Your task to perform on an android device: Search for "razer huntsman" on amazon, select the first entry, add it to the cart, then select checkout. Image 0: 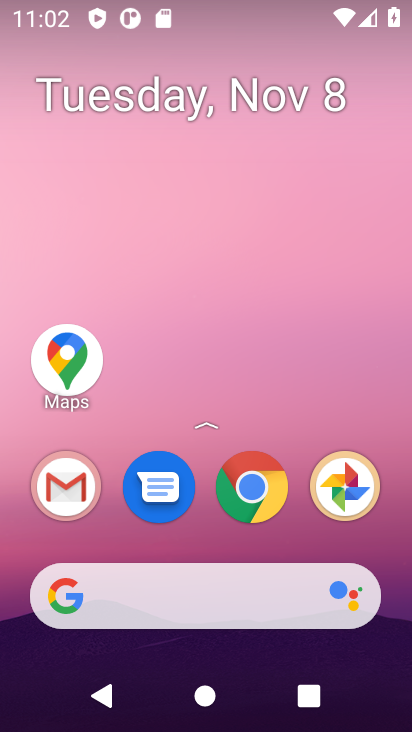
Step 0: click (172, 605)
Your task to perform on an android device: Search for "razer huntsman" on amazon, select the first entry, add it to the cart, then select checkout. Image 1: 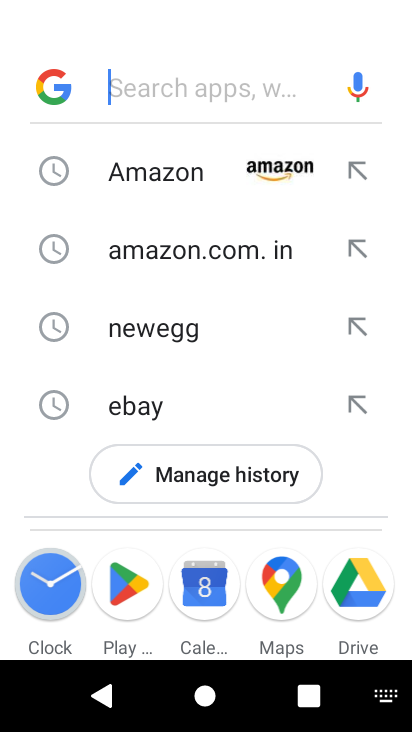
Step 1: click (229, 163)
Your task to perform on an android device: Search for "razer huntsman" on amazon, select the first entry, add it to the cart, then select checkout. Image 2: 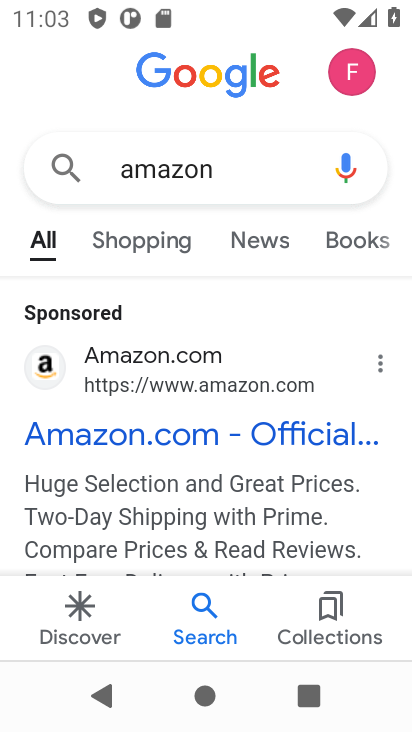
Step 2: click (96, 439)
Your task to perform on an android device: Search for "razer huntsman" on amazon, select the first entry, add it to the cart, then select checkout. Image 3: 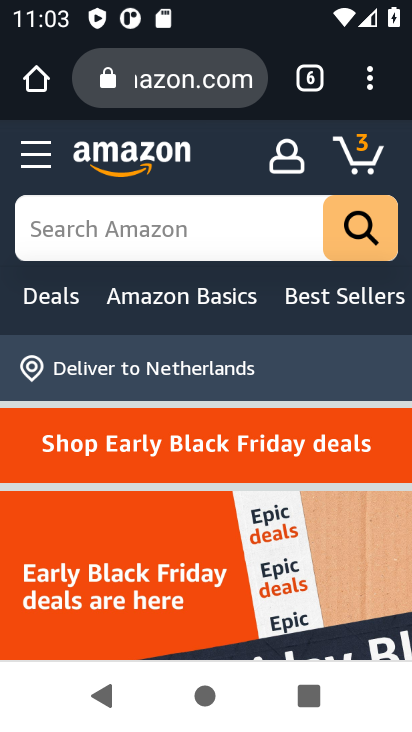
Step 3: click (203, 226)
Your task to perform on an android device: Search for "razer huntsman" on amazon, select the first entry, add it to the cart, then select checkout. Image 4: 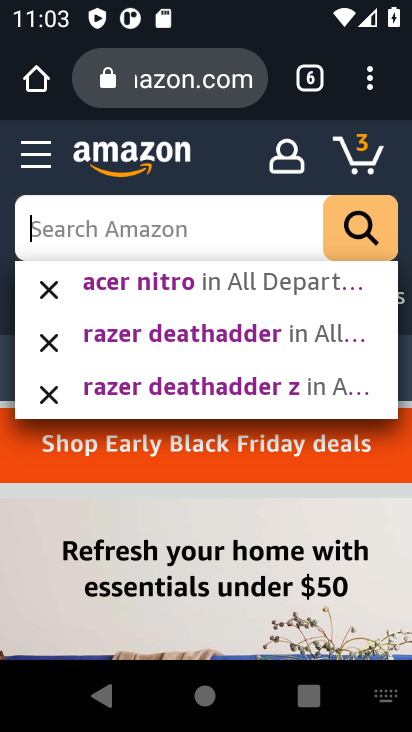
Step 4: type "razer huntsman"
Your task to perform on an android device: Search for "razer huntsman" on amazon, select the first entry, add it to the cart, then select checkout. Image 5: 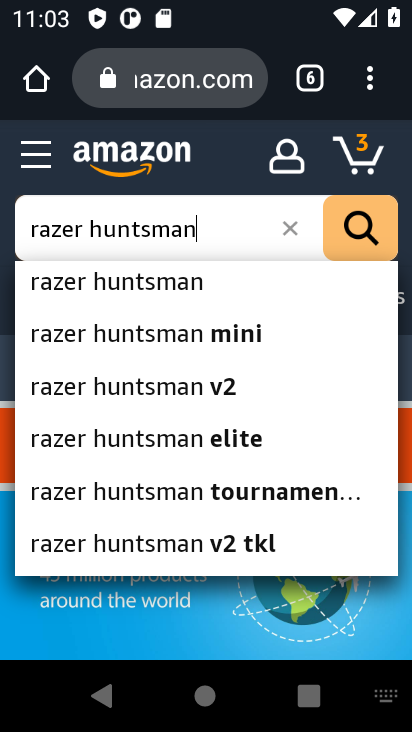
Step 5: click (142, 286)
Your task to perform on an android device: Search for "razer huntsman" on amazon, select the first entry, add it to the cart, then select checkout. Image 6: 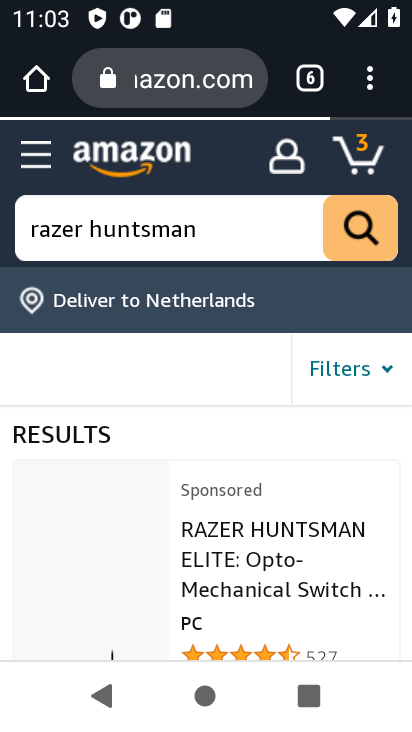
Step 6: drag from (238, 524) to (226, 433)
Your task to perform on an android device: Search for "razer huntsman" on amazon, select the first entry, add it to the cart, then select checkout. Image 7: 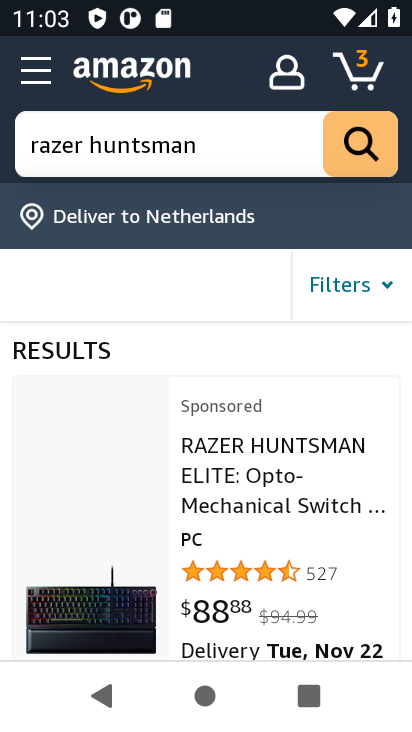
Step 7: drag from (259, 525) to (259, 368)
Your task to perform on an android device: Search for "razer huntsman" on amazon, select the first entry, add it to the cart, then select checkout. Image 8: 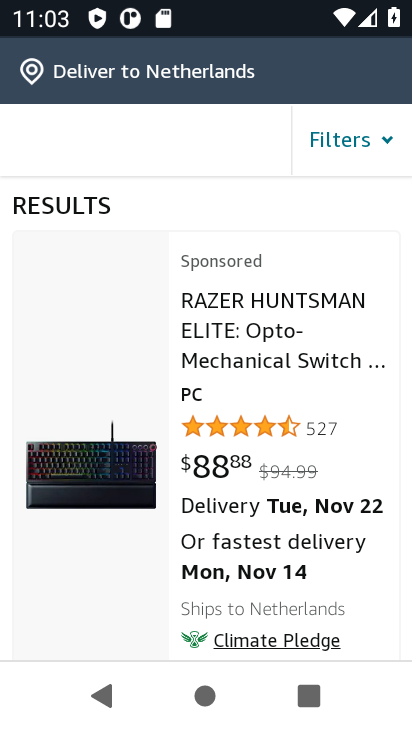
Step 8: drag from (278, 396) to (274, 362)
Your task to perform on an android device: Search for "razer huntsman" on amazon, select the first entry, add it to the cart, then select checkout. Image 9: 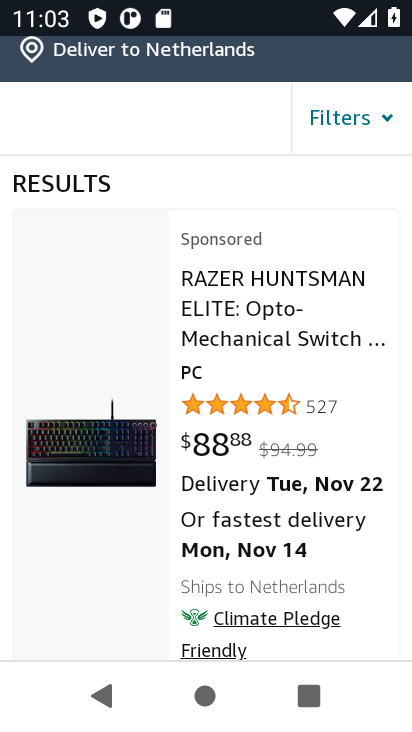
Step 9: drag from (226, 447) to (226, 359)
Your task to perform on an android device: Search for "razer huntsman" on amazon, select the first entry, add it to the cart, then select checkout. Image 10: 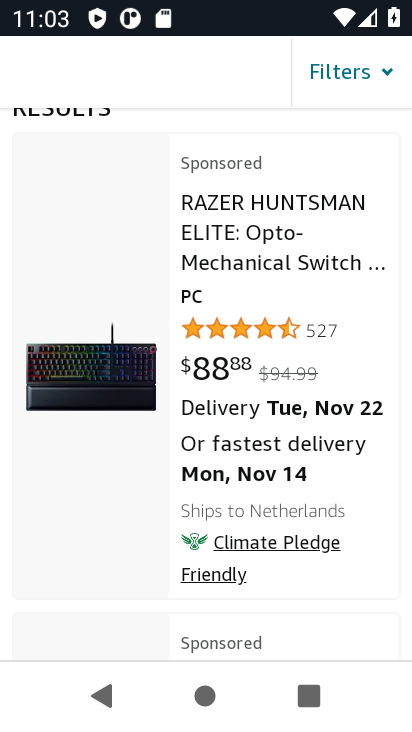
Step 10: drag from (177, 413) to (188, 321)
Your task to perform on an android device: Search for "razer huntsman" on amazon, select the first entry, add it to the cart, then select checkout. Image 11: 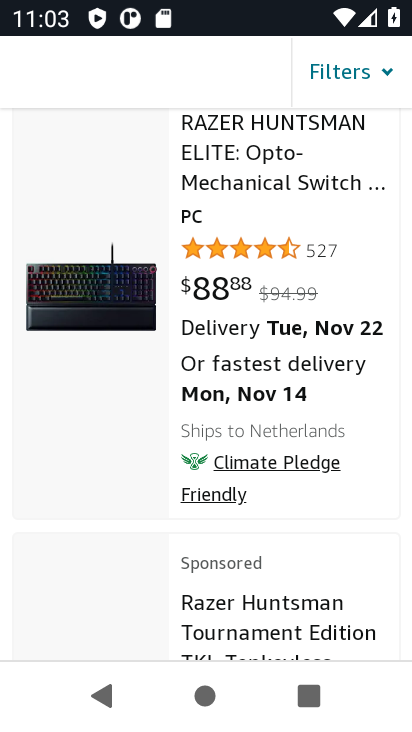
Step 11: drag from (125, 501) to (153, 135)
Your task to perform on an android device: Search for "razer huntsman" on amazon, select the first entry, add it to the cart, then select checkout. Image 12: 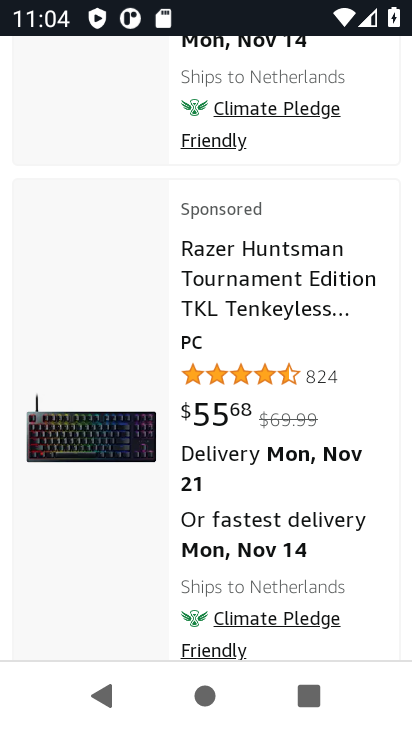
Step 12: drag from (157, 501) to (181, 271)
Your task to perform on an android device: Search for "razer huntsman" on amazon, select the first entry, add it to the cart, then select checkout. Image 13: 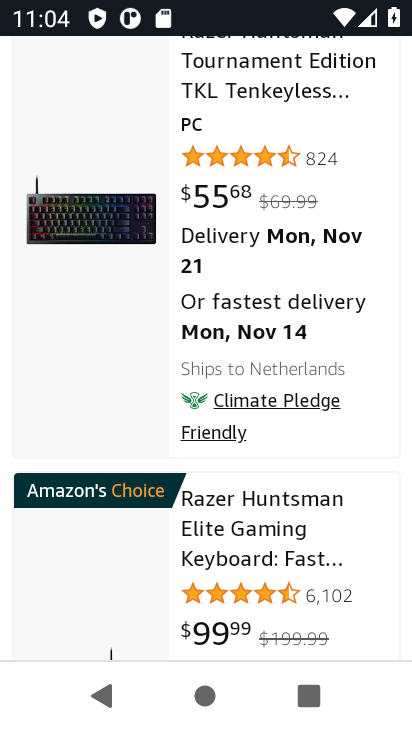
Step 13: click (259, 72)
Your task to perform on an android device: Search for "razer huntsman" on amazon, select the first entry, add it to the cart, then select checkout. Image 14: 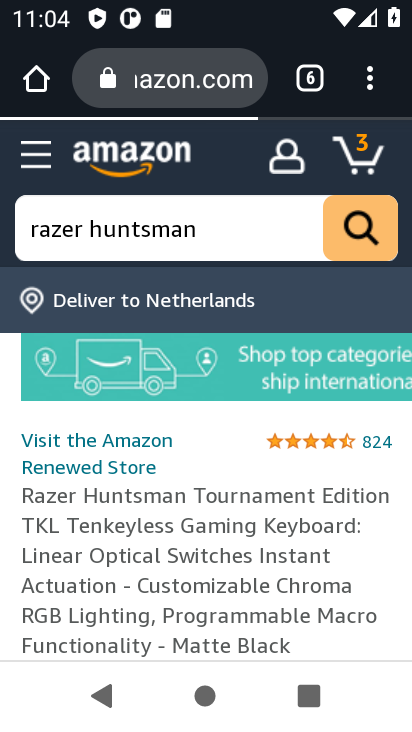
Step 14: drag from (183, 488) to (197, 433)
Your task to perform on an android device: Search for "razer huntsman" on amazon, select the first entry, add it to the cart, then select checkout. Image 15: 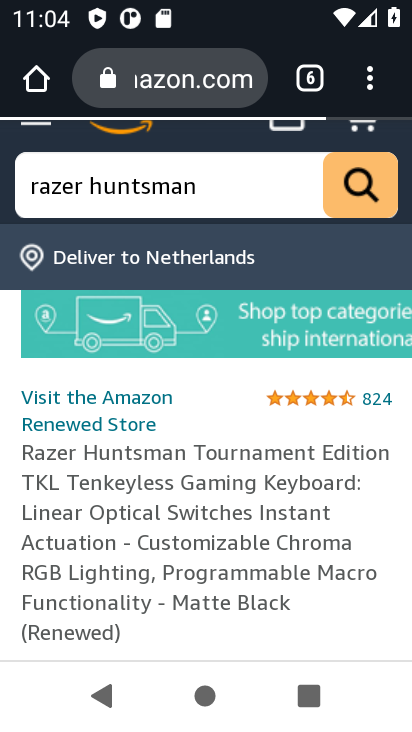
Step 15: drag from (239, 572) to (236, 437)
Your task to perform on an android device: Search for "razer huntsman" on amazon, select the first entry, add it to the cart, then select checkout. Image 16: 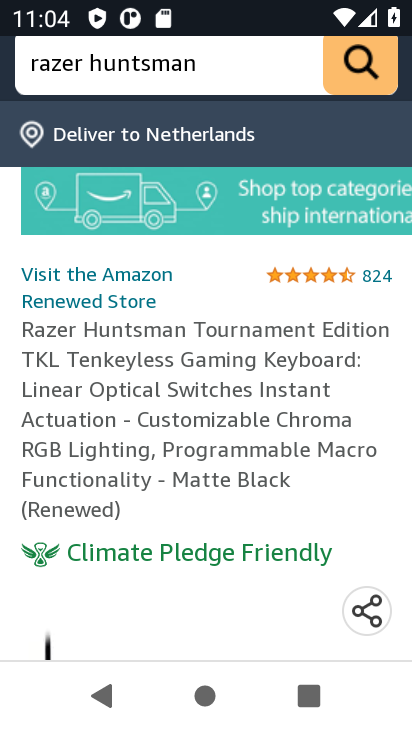
Step 16: drag from (294, 543) to (170, 248)
Your task to perform on an android device: Search for "razer huntsman" on amazon, select the first entry, add it to the cart, then select checkout. Image 17: 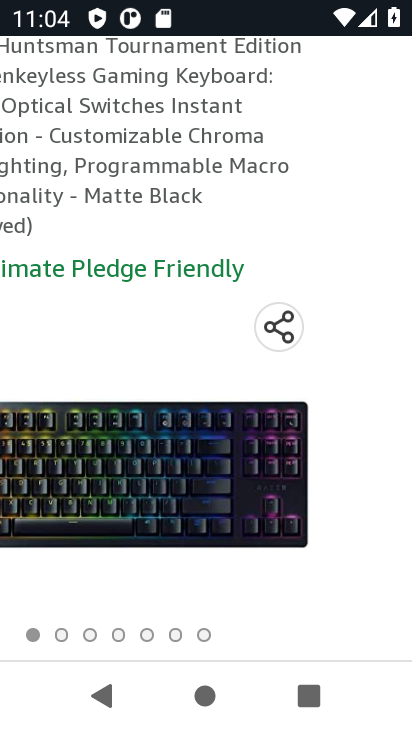
Step 17: drag from (208, 452) to (211, 301)
Your task to perform on an android device: Search for "razer huntsman" on amazon, select the first entry, add it to the cart, then select checkout. Image 18: 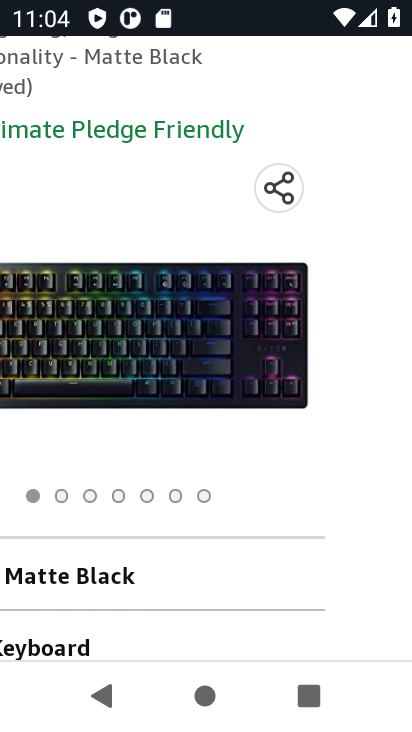
Step 18: drag from (227, 518) to (296, 117)
Your task to perform on an android device: Search for "razer huntsman" on amazon, select the first entry, add it to the cart, then select checkout. Image 19: 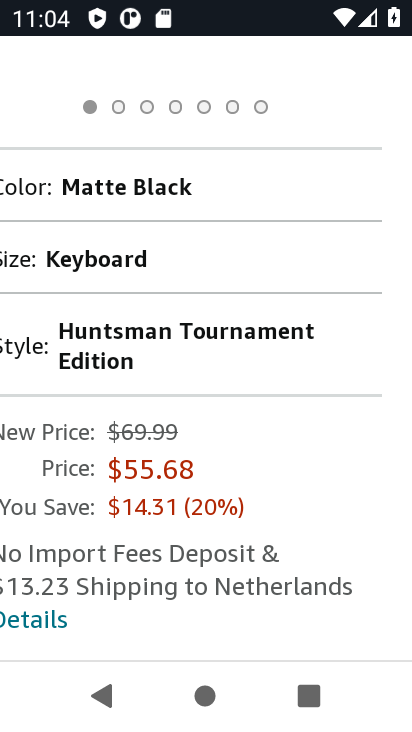
Step 19: drag from (180, 536) to (206, 343)
Your task to perform on an android device: Search for "razer huntsman" on amazon, select the first entry, add it to the cart, then select checkout. Image 20: 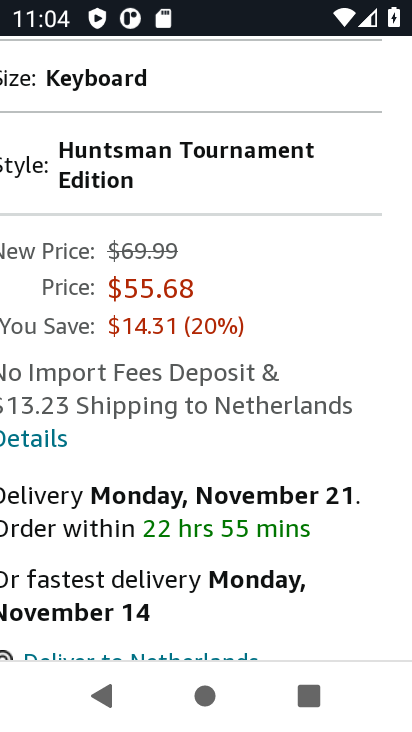
Step 20: drag from (195, 542) to (211, 398)
Your task to perform on an android device: Search for "razer huntsman" on amazon, select the first entry, add it to the cart, then select checkout. Image 21: 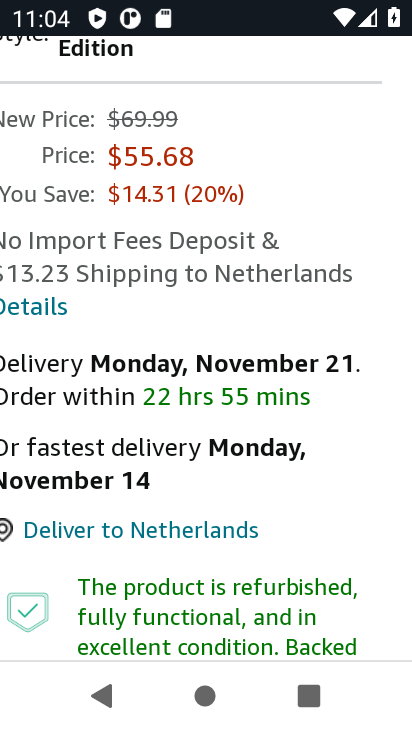
Step 21: click (278, 177)
Your task to perform on an android device: Search for "razer huntsman" on amazon, select the first entry, add it to the cart, then select checkout. Image 22: 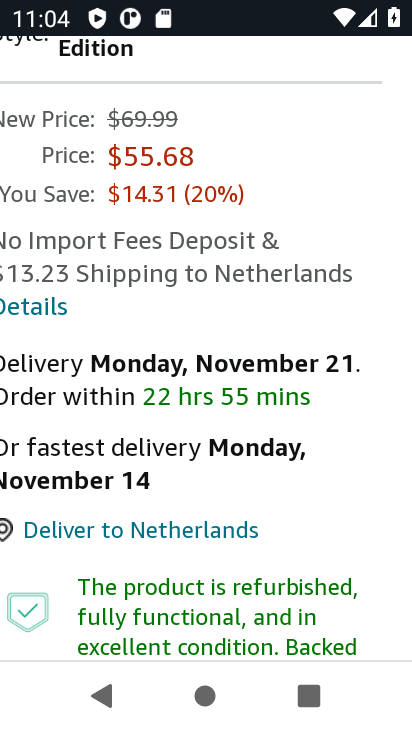
Step 22: drag from (165, 507) to (191, 216)
Your task to perform on an android device: Search for "razer huntsman" on amazon, select the first entry, add it to the cart, then select checkout. Image 23: 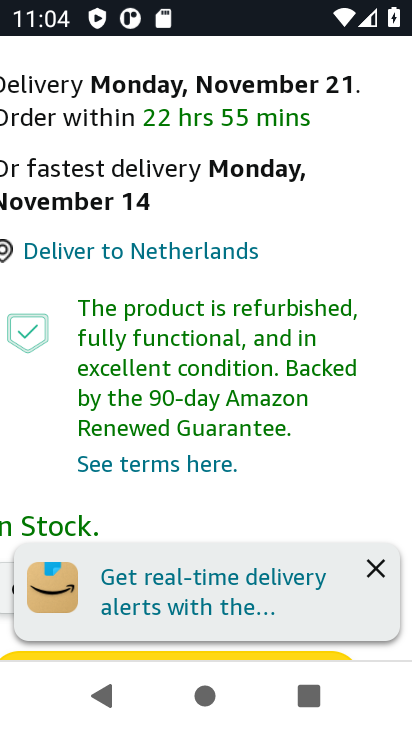
Step 23: drag from (143, 514) to (185, 241)
Your task to perform on an android device: Search for "razer huntsman" on amazon, select the first entry, add it to the cart, then select checkout. Image 24: 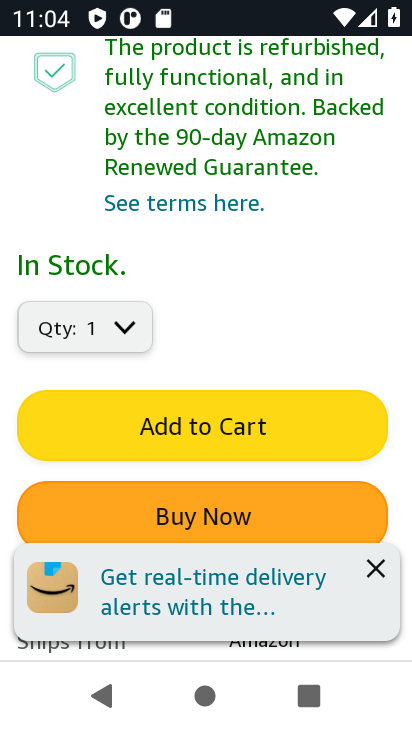
Step 24: click (178, 437)
Your task to perform on an android device: Search for "razer huntsman" on amazon, select the first entry, add it to the cart, then select checkout. Image 25: 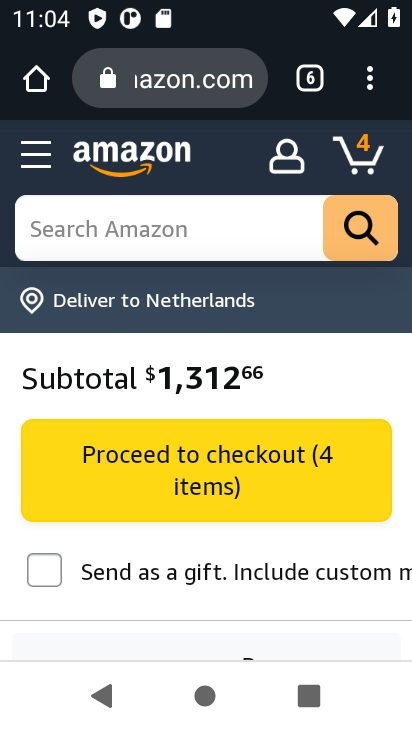
Step 25: click (259, 474)
Your task to perform on an android device: Search for "razer huntsman" on amazon, select the first entry, add it to the cart, then select checkout. Image 26: 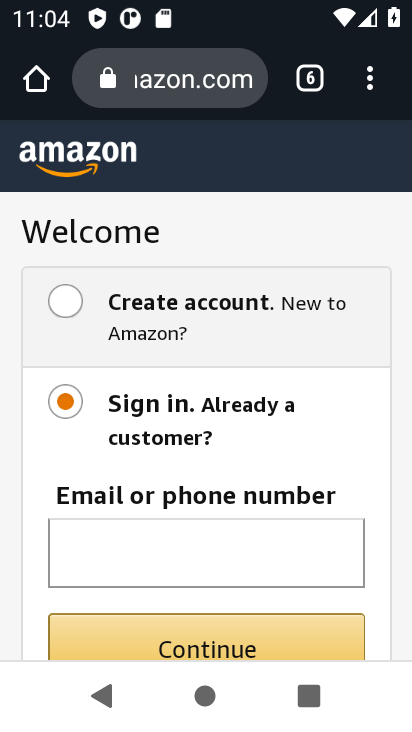
Step 26: task complete